Your task to perform on an android device: Open wifi settings Image 0: 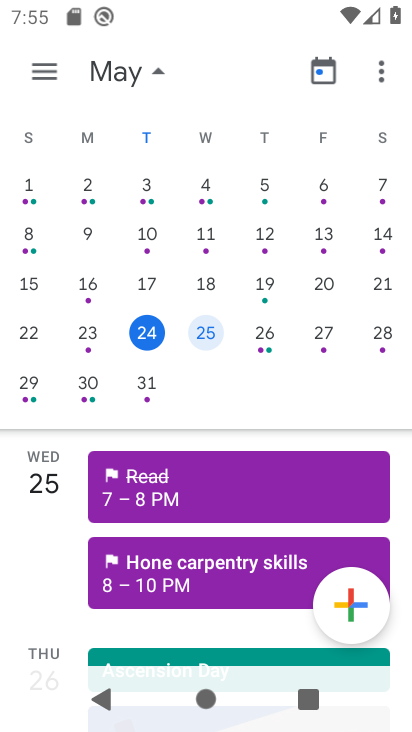
Step 0: press home button
Your task to perform on an android device: Open wifi settings Image 1: 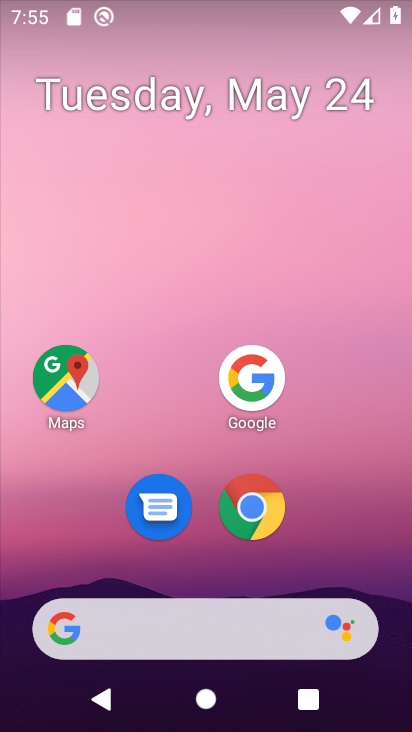
Step 1: drag from (208, 604) to (333, 20)
Your task to perform on an android device: Open wifi settings Image 2: 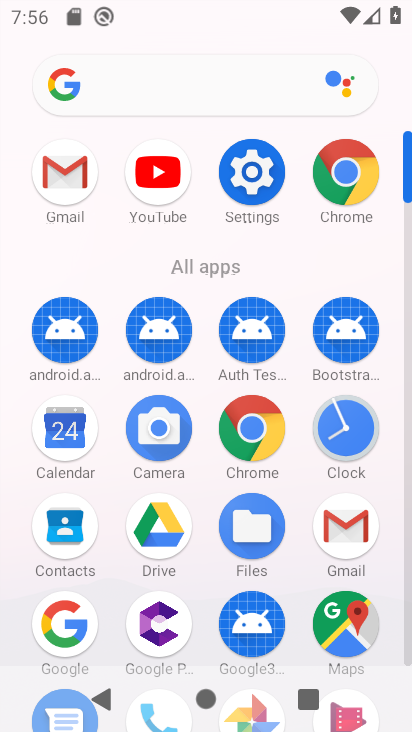
Step 2: click (246, 170)
Your task to perform on an android device: Open wifi settings Image 3: 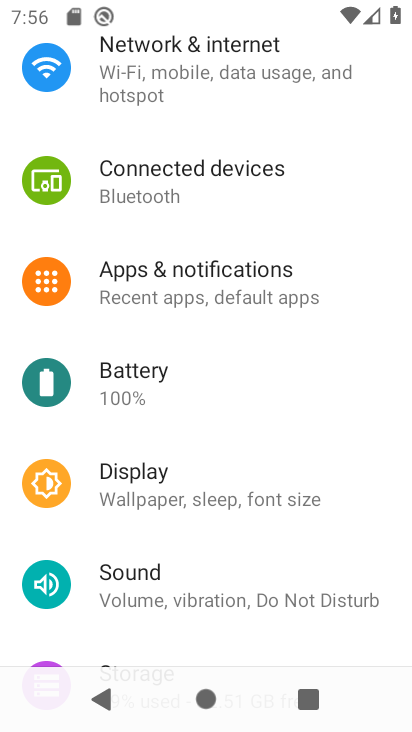
Step 3: drag from (312, 165) to (256, 555)
Your task to perform on an android device: Open wifi settings Image 4: 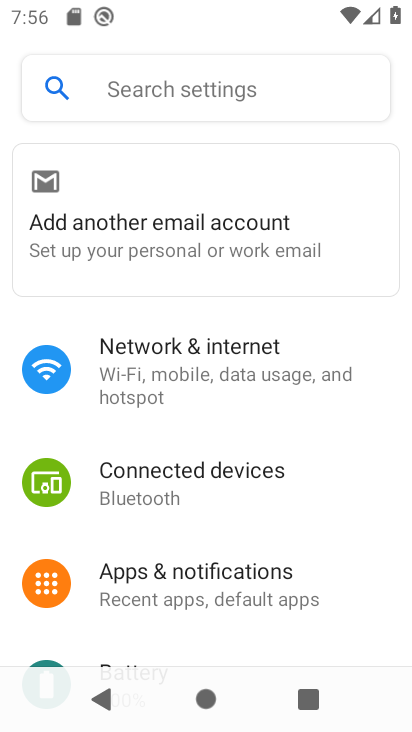
Step 4: click (223, 363)
Your task to perform on an android device: Open wifi settings Image 5: 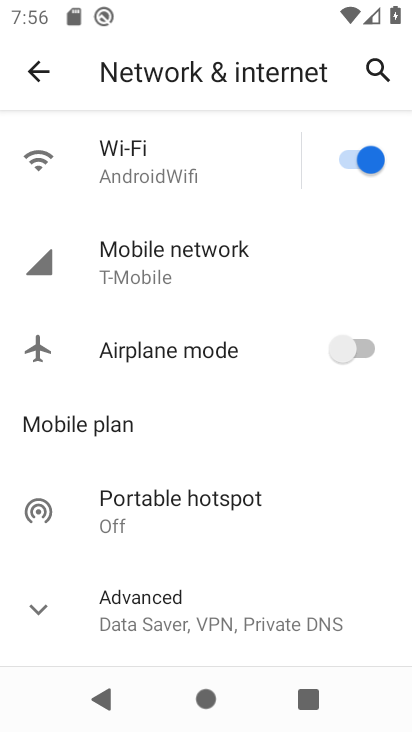
Step 5: click (149, 166)
Your task to perform on an android device: Open wifi settings Image 6: 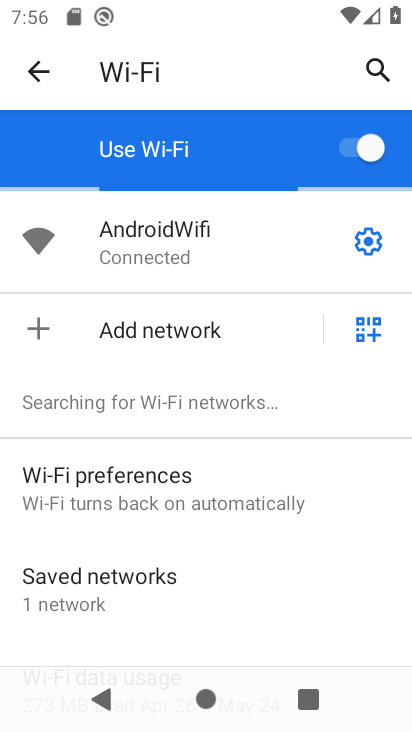
Step 6: task complete